Your task to perform on an android device: delete the emails in spam in the gmail app Image 0: 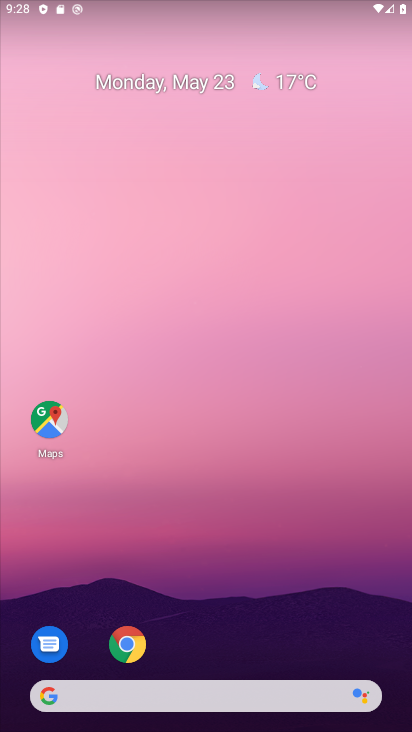
Step 0: drag from (182, 621) to (247, 193)
Your task to perform on an android device: delete the emails in spam in the gmail app Image 1: 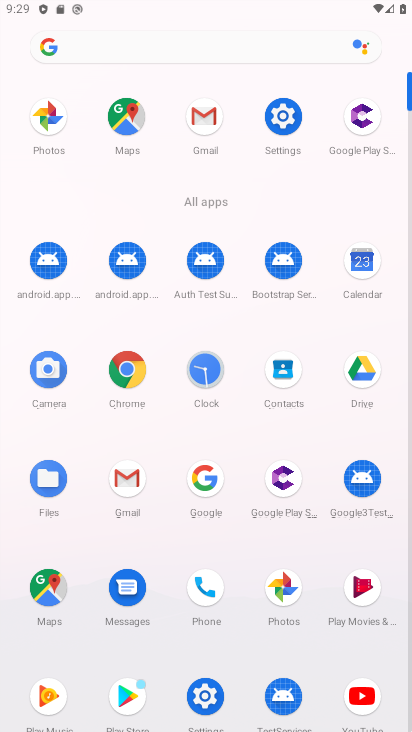
Step 1: click (126, 484)
Your task to perform on an android device: delete the emails in spam in the gmail app Image 2: 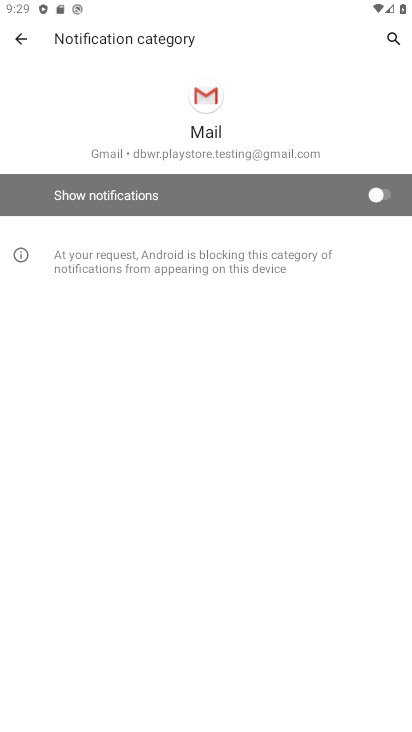
Step 2: click (24, 37)
Your task to perform on an android device: delete the emails in spam in the gmail app Image 3: 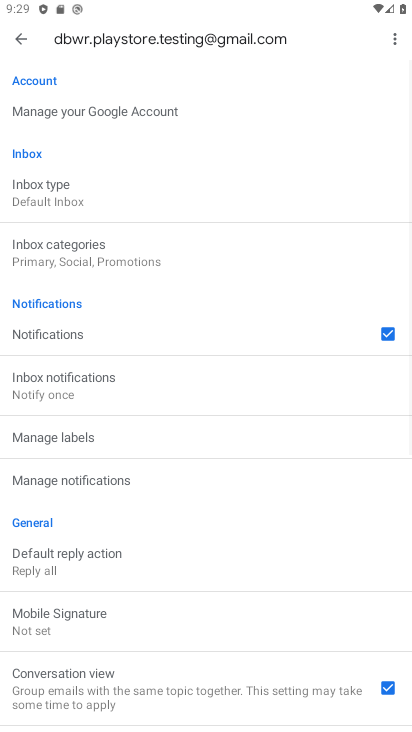
Step 3: click (15, 34)
Your task to perform on an android device: delete the emails in spam in the gmail app Image 4: 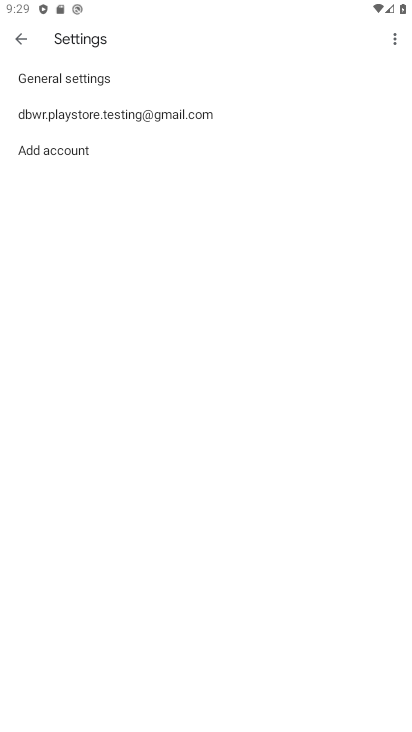
Step 4: click (15, 34)
Your task to perform on an android device: delete the emails in spam in the gmail app Image 5: 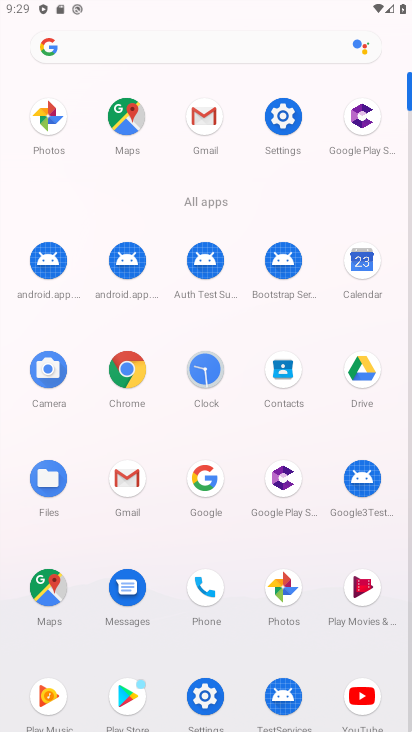
Step 5: click (200, 111)
Your task to perform on an android device: delete the emails in spam in the gmail app Image 6: 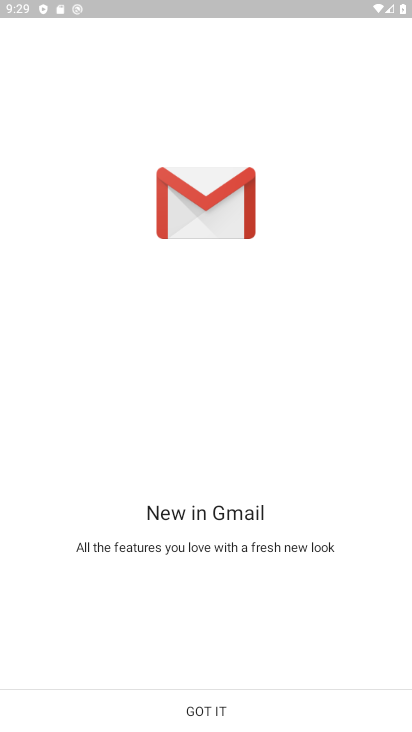
Step 6: click (248, 722)
Your task to perform on an android device: delete the emails in spam in the gmail app Image 7: 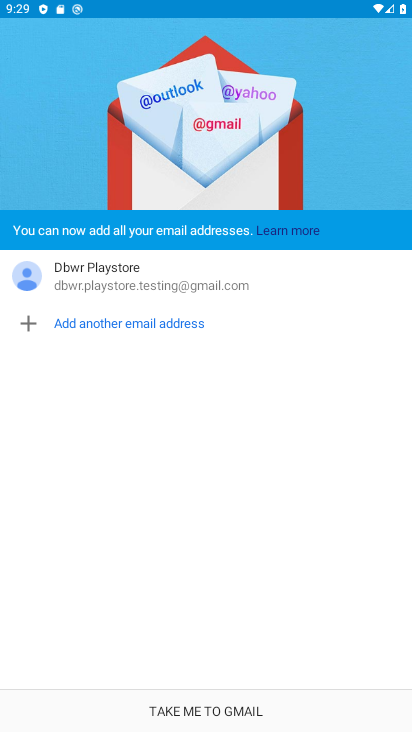
Step 7: click (183, 714)
Your task to perform on an android device: delete the emails in spam in the gmail app Image 8: 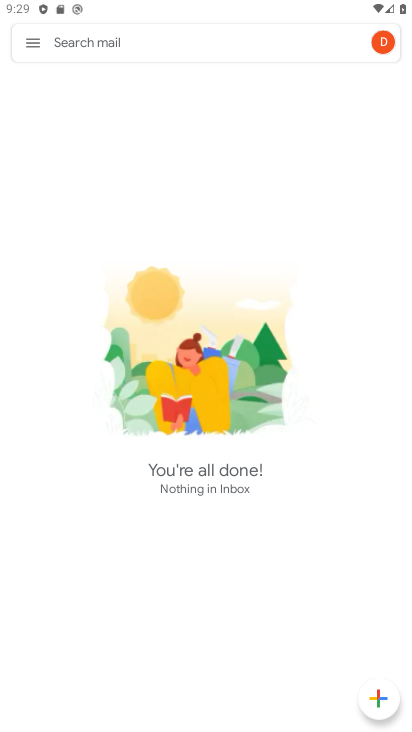
Step 8: click (24, 43)
Your task to perform on an android device: delete the emails in spam in the gmail app Image 9: 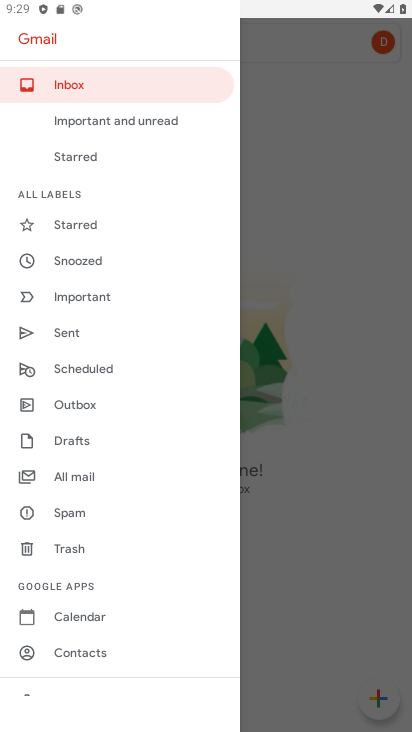
Step 9: click (86, 513)
Your task to perform on an android device: delete the emails in spam in the gmail app Image 10: 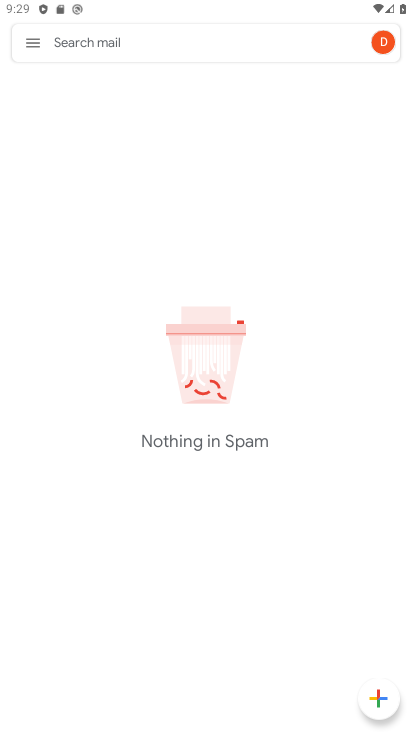
Step 10: task complete